Your task to perform on an android device: set the stopwatch Image 0: 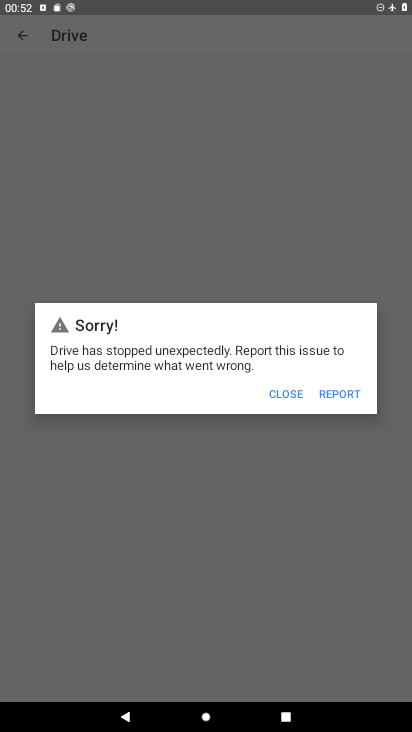
Step 0: press home button
Your task to perform on an android device: set the stopwatch Image 1: 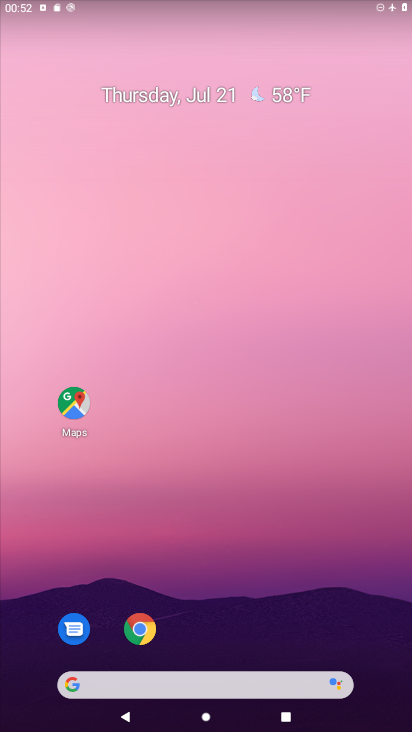
Step 1: drag from (211, 628) to (219, 170)
Your task to perform on an android device: set the stopwatch Image 2: 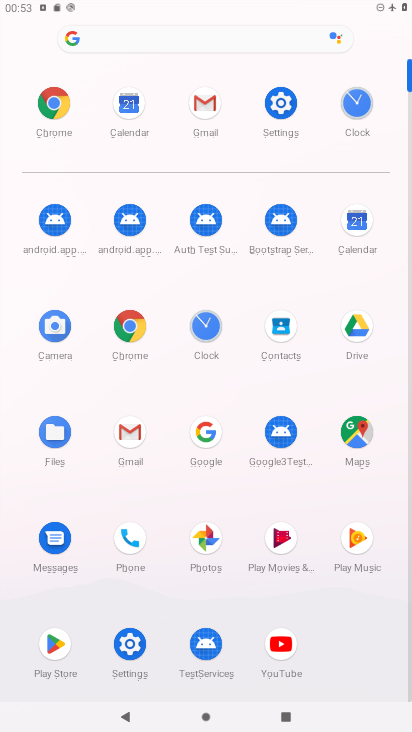
Step 2: click (355, 109)
Your task to perform on an android device: set the stopwatch Image 3: 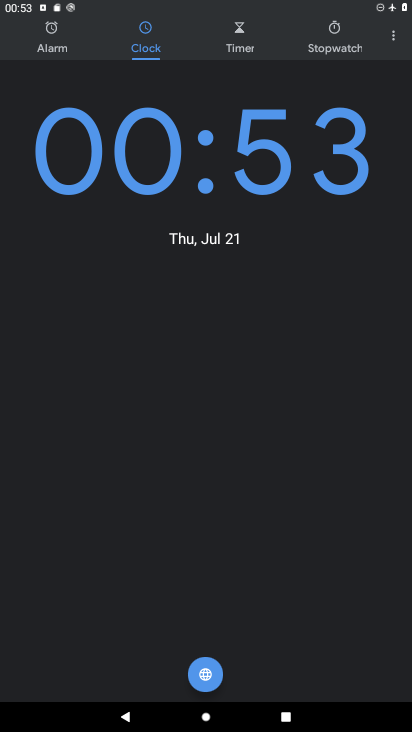
Step 3: click (339, 34)
Your task to perform on an android device: set the stopwatch Image 4: 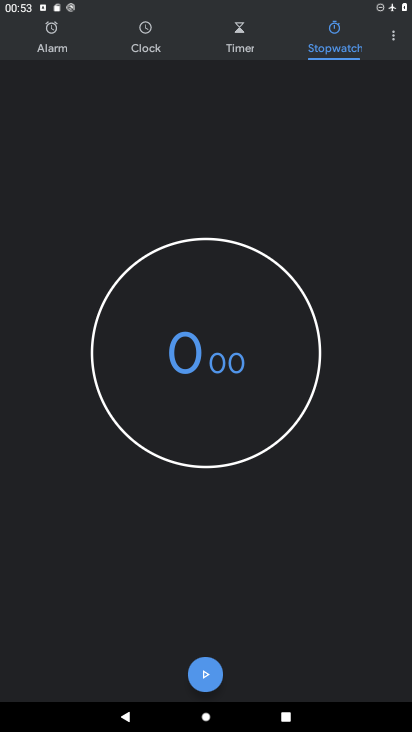
Step 4: click (195, 665)
Your task to perform on an android device: set the stopwatch Image 5: 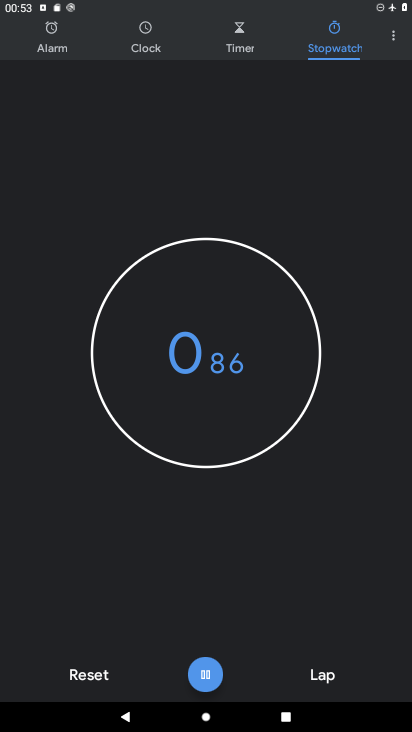
Step 5: task complete